Your task to perform on an android device: set the timer Image 0: 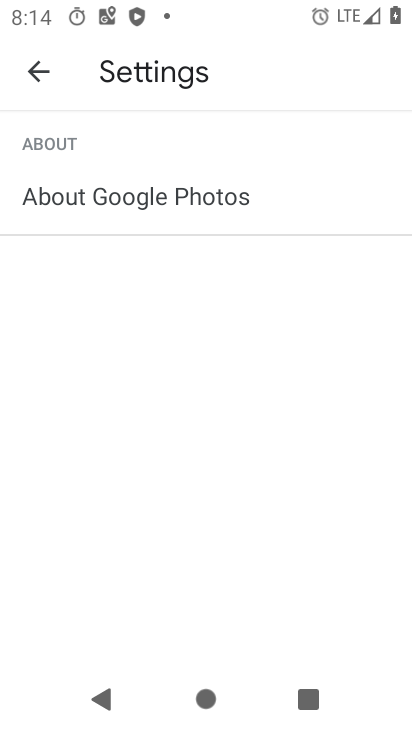
Step 0: press home button
Your task to perform on an android device: set the timer Image 1: 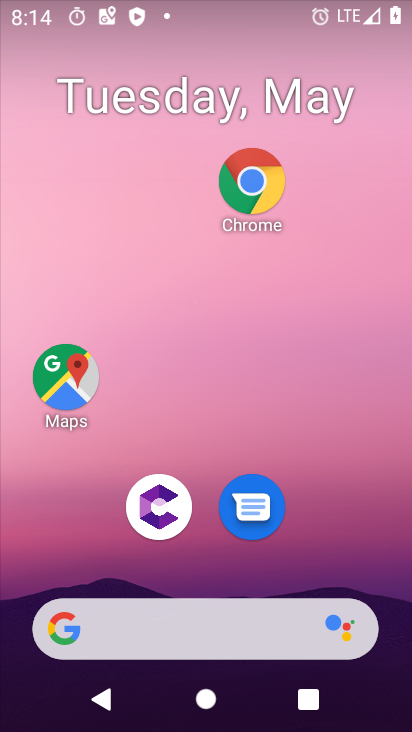
Step 1: drag from (318, 563) to (338, 131)
Your task to perform on an android device: set the timer Image 2: 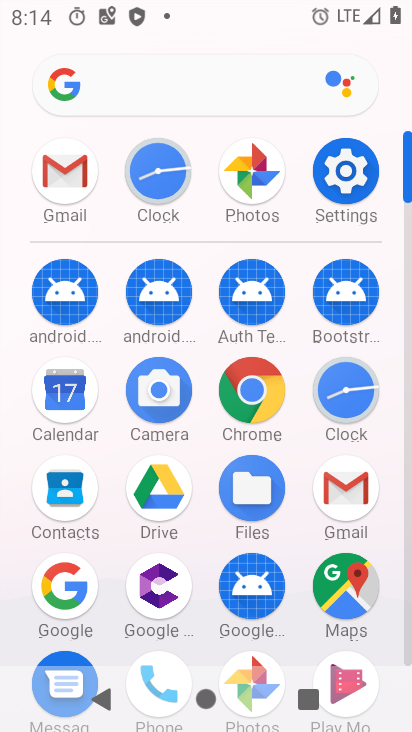
Step 2: click (347, 385)
Your task to perform on an android device: set the timer Image 3: 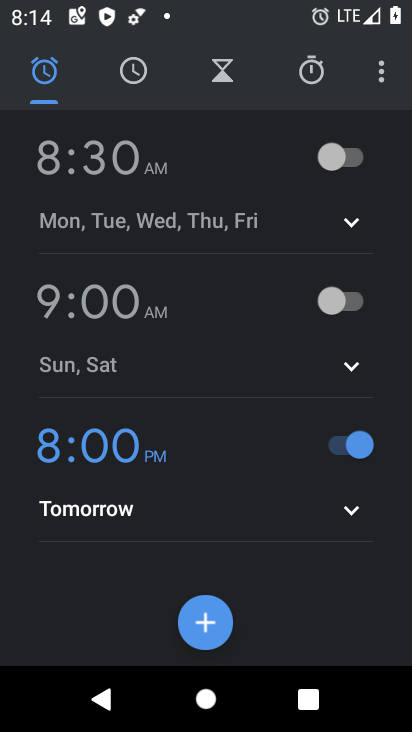
Step 3: click (228, 74)
Your task to perform on an android device: set the timer Image 4: 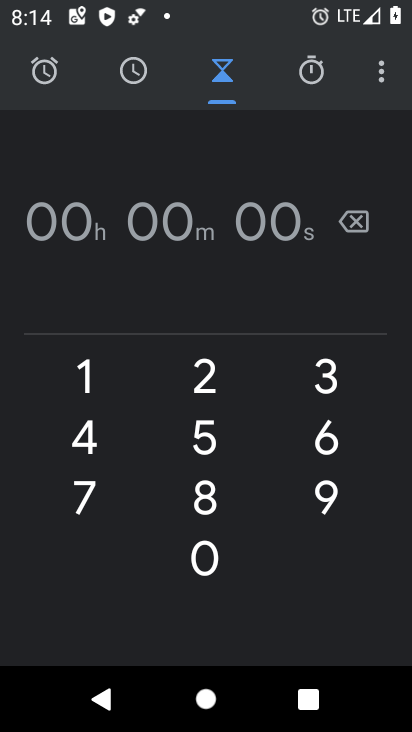
Step 4: click (198, 379)
Your task to perform on an android device: set the timer Image 5: 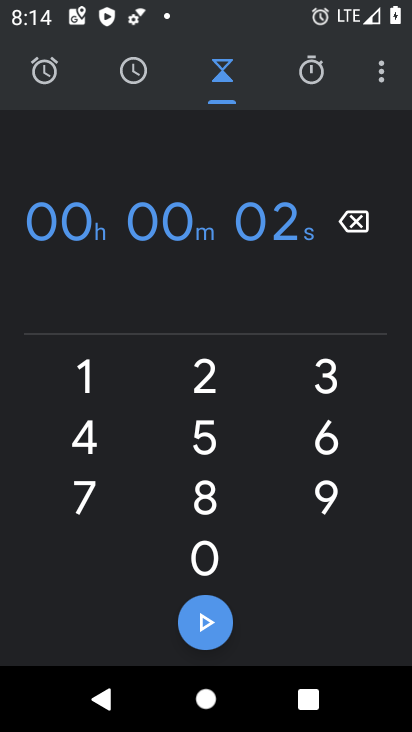
Step 5: click (198, 378)
Your task to perform on an android device: set the timer Image 6: 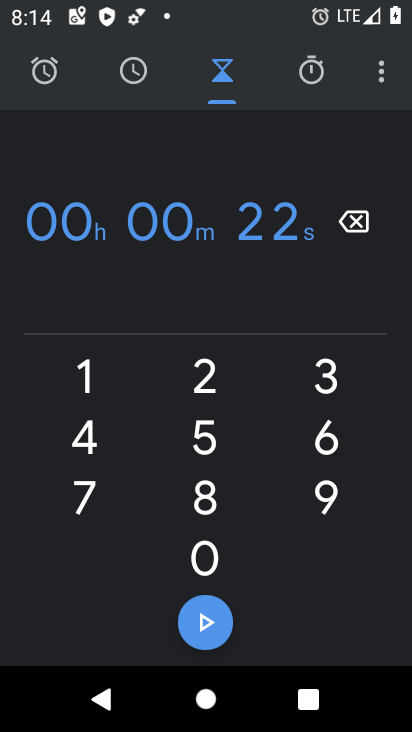
Step 6: click (198, 378)
Your task to perform on an android device: set the timer Image 7: 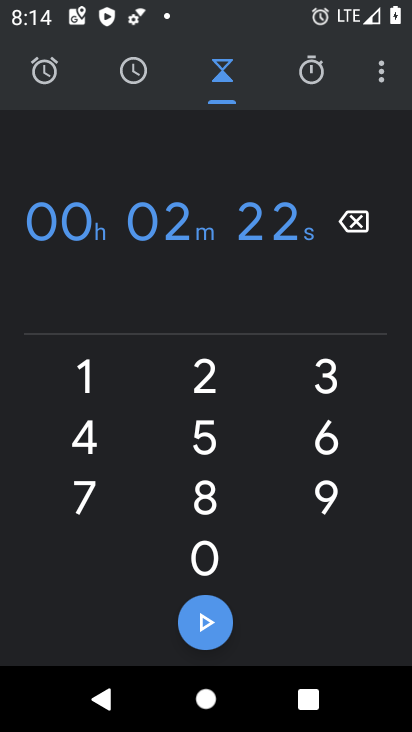
Step 7: click (198, 378)
Your task to perform on an android device: set the timer Image 8: 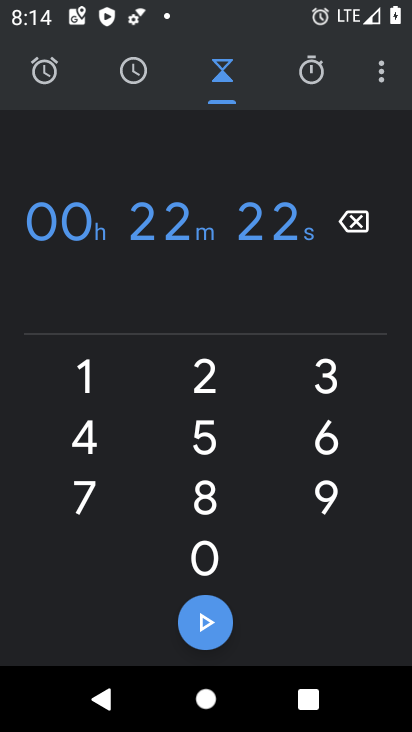
Step 8: click (198, 378)
Your task to perform on an android device: set the timer Image 9: 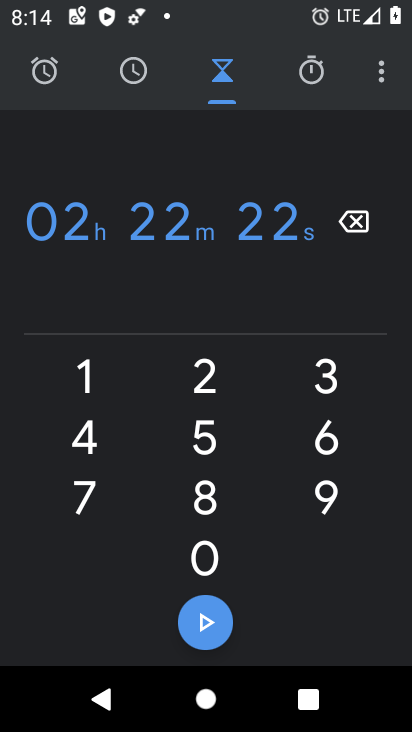
Step 9: click (198, 378)
Your task to perform on an android device: set the timer Image 10: 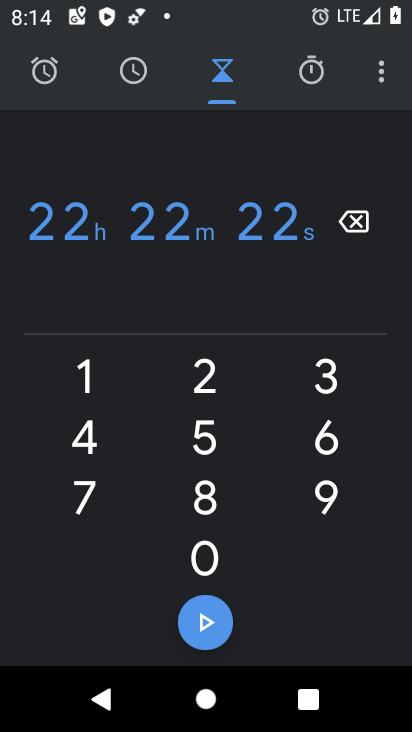
Step 10: click (206, 627)
Your task to perform on an android device: set the timer Image 11: 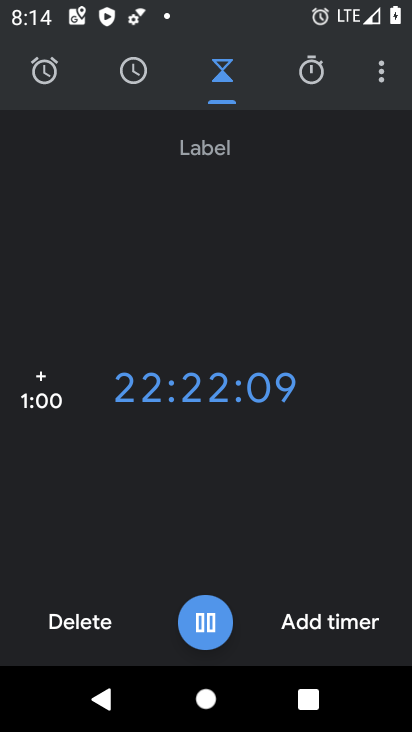
Step 11: task complete